Your task to perform on an android device: Open calendar and show me the second week of next month Image 0: 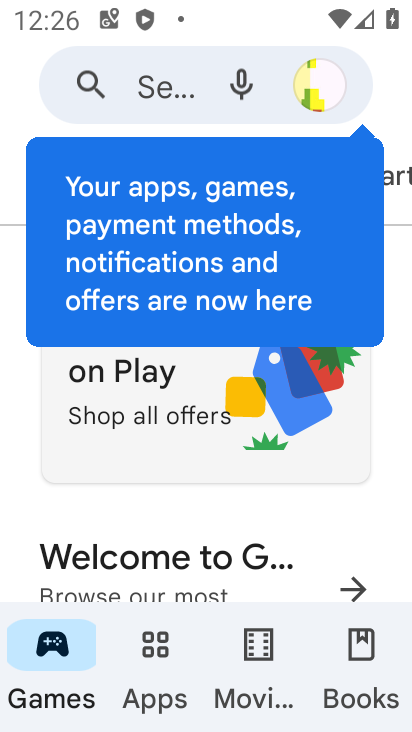
Step 0: press home button
Your task to perform on an android device: Open calendar and show me the second week of next month Image 1: 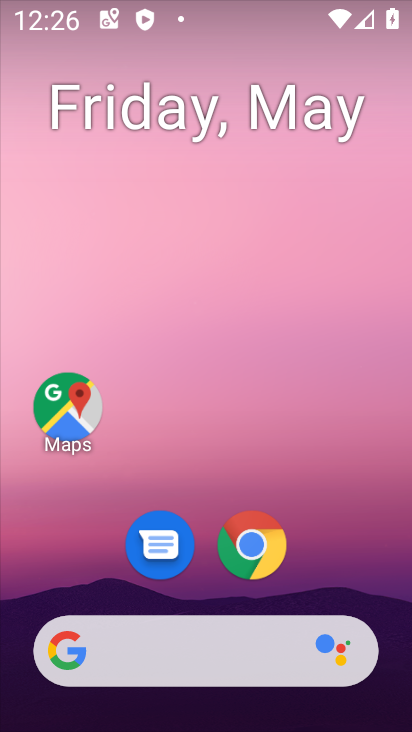
Step 1: drag from (320, 556) to (383, 227)
Your task to perform on an android device: Open calendar and show me the second week of next month Image 2: 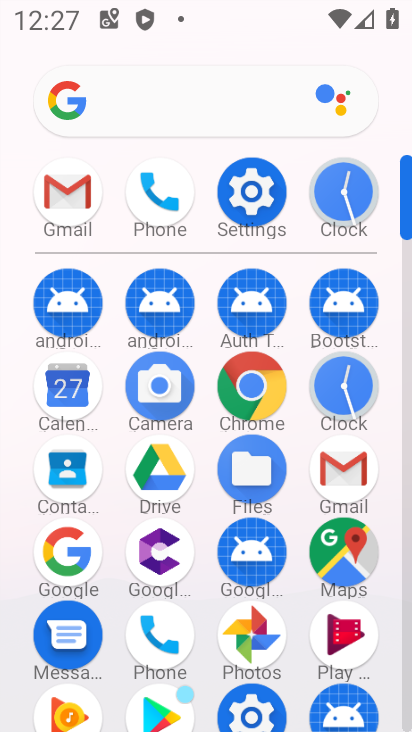
Step 2: click (66, 391)
Your task to perform on an android device: Open calendar and show me the second week of next month Image 3: 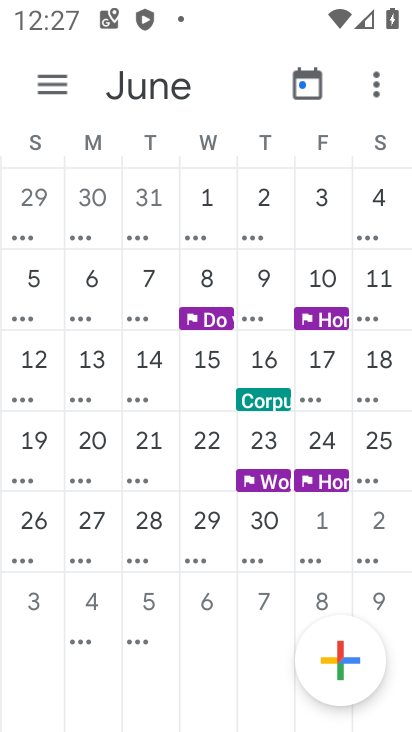
Step 3: task complete